Your task to perform on an android device: install app "Lyft - Rideshare, Bikes, Scooters & Transit" Image 0: 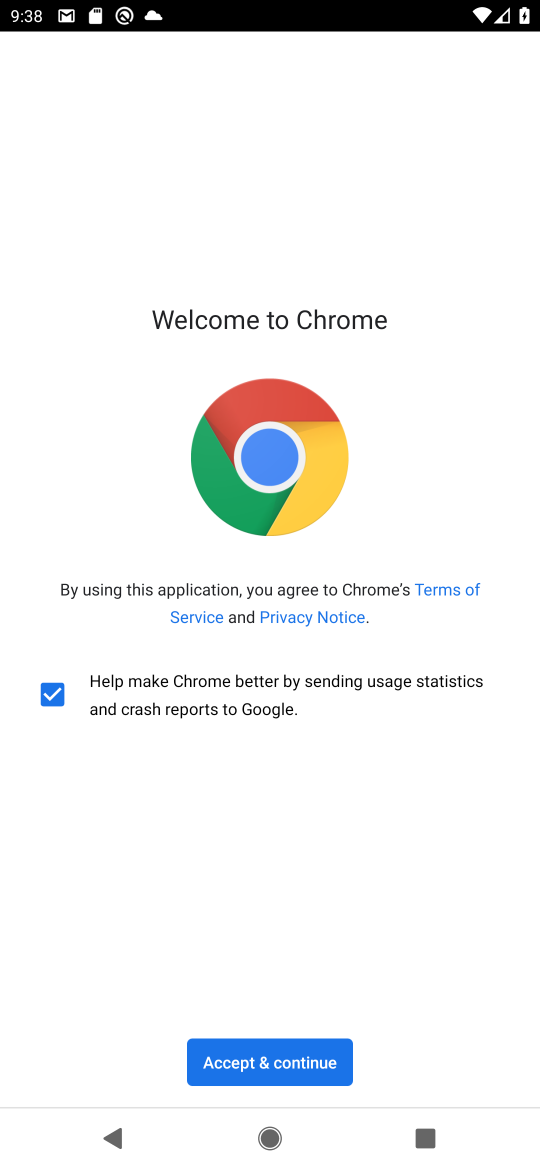
Step 0: press home button
Your task to perform on an android device: install app "Lyft - Rideshare, Bikes, Scooters & Transit" Image 1: 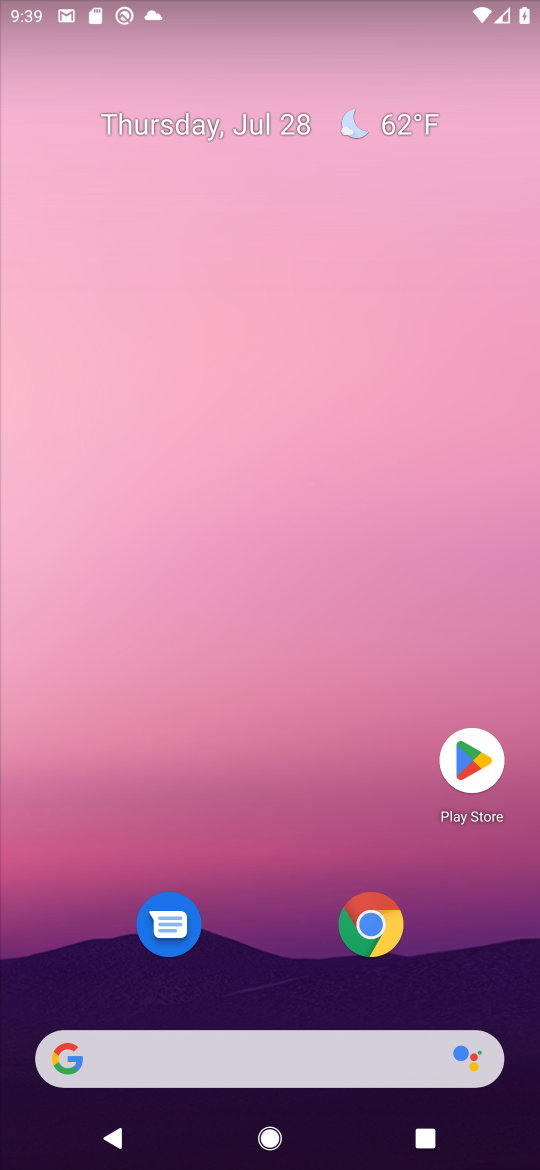
Step 1: click (464, 760)
Your task to perform on an android device: install app "Lyft - Rideshare, Bikes, Scooters & Transit" Image 2: 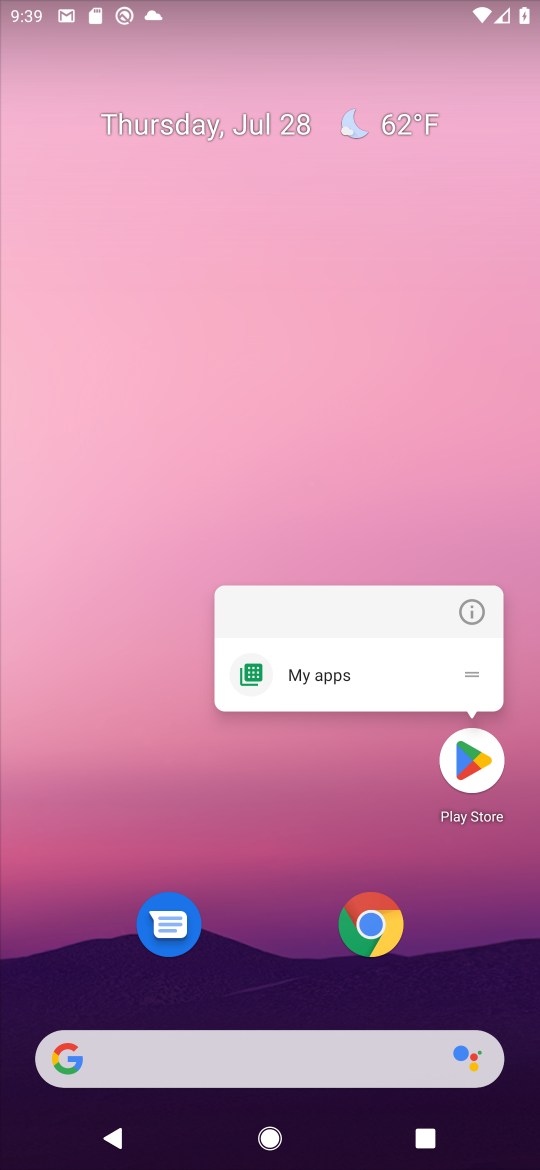
Step 2: click (464, 765)
Your task to perform on an android device: install app "Lyft - Rideshare, Bikes, Scooters & Transit" Image 3: 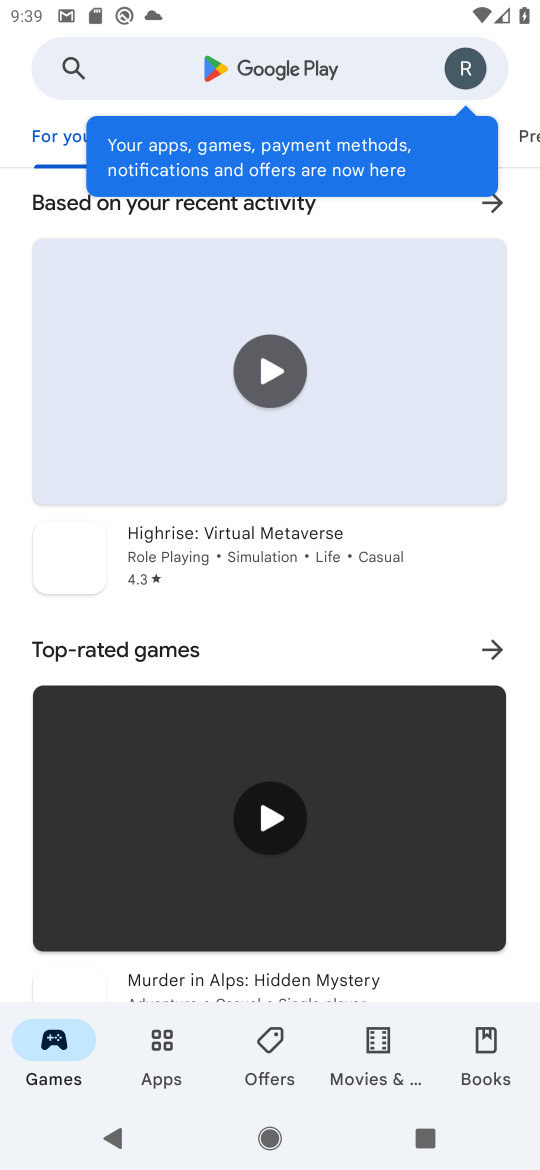
Step 3: click (283, 66)
Your task to perform on an android device: install app "Lyft - Rideshare, Bikes, Scooters & Transit" Image 4: 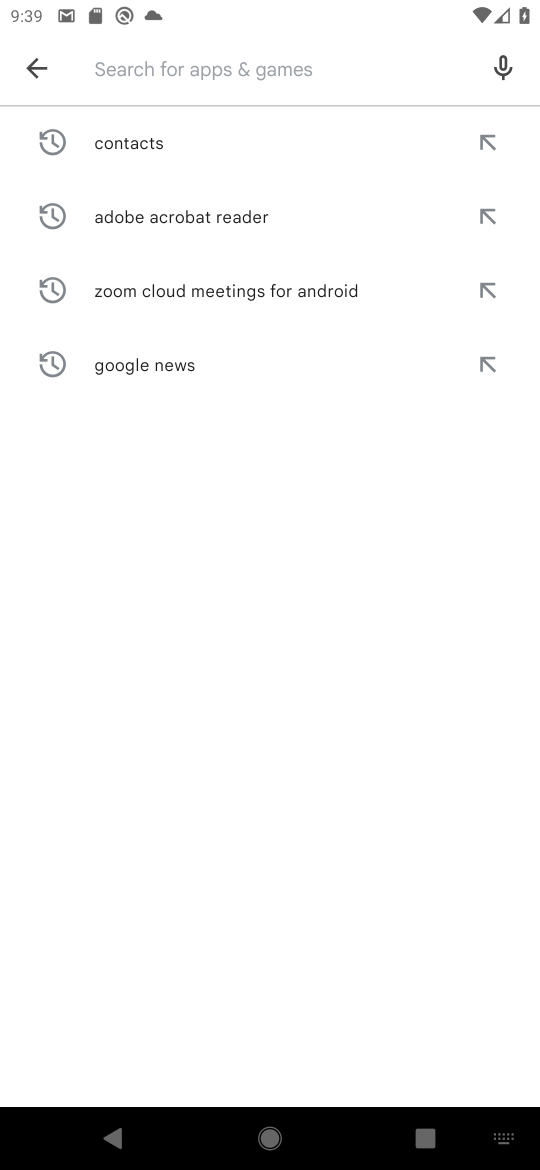
Step 4: type "Lyft - Rideshare, Bikes, Scooters & Transit"
Your task to perform on an android device: install app "Lyft - Rideshare, Bikes, Scooters & Transit" Image 5: 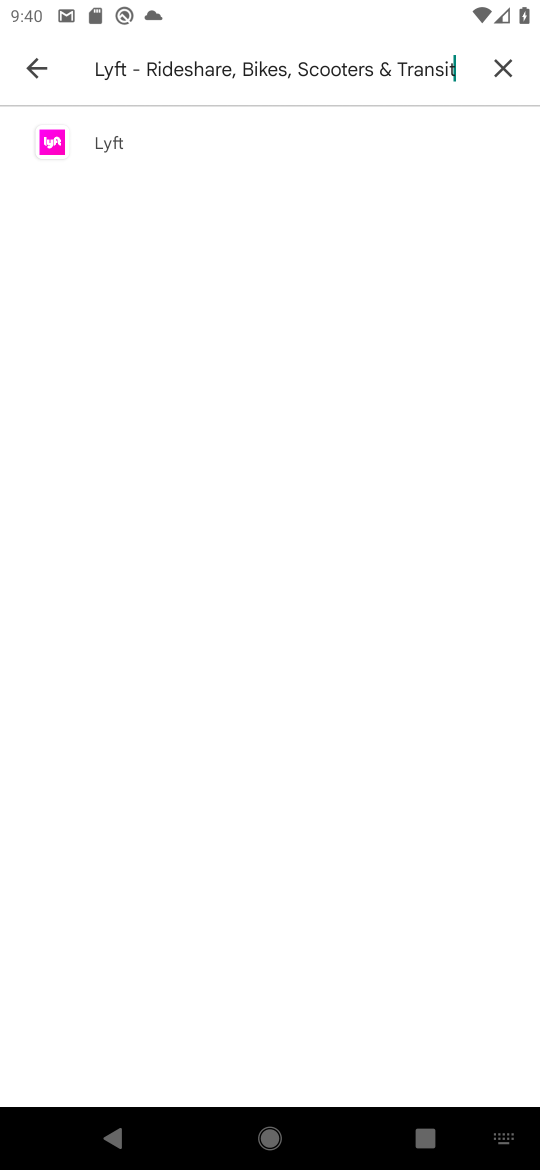
Step 5: click (104, 144)
Your task to perform on an android device: install app "Lyft - Rideshare, Bikes, Scooters & Transit" Image 6: 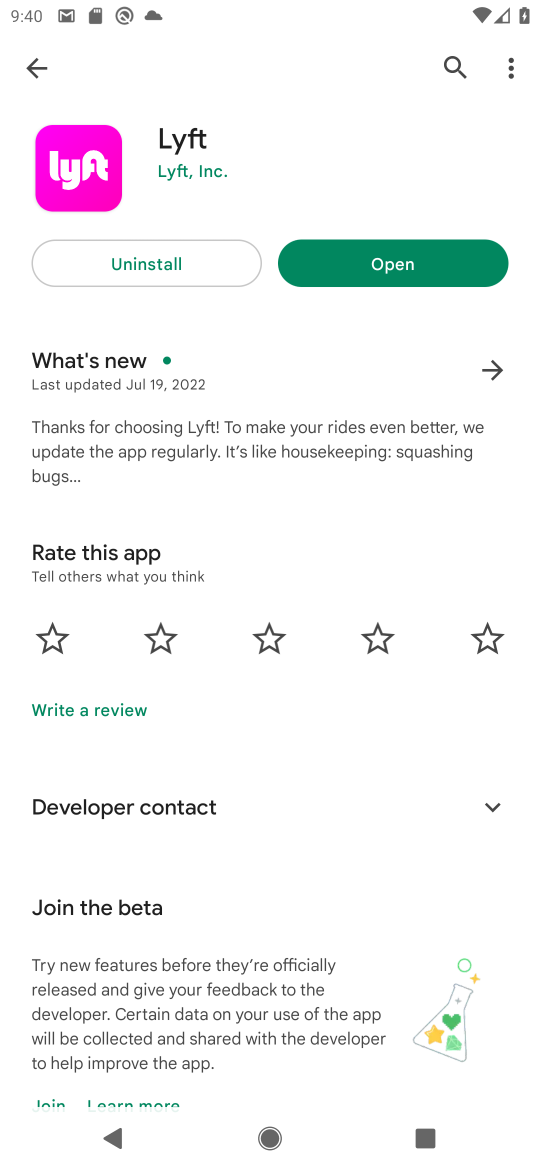
Step 6: task complete